Your task to perform on an android device: move a message to another label in the gmail app Image 0: 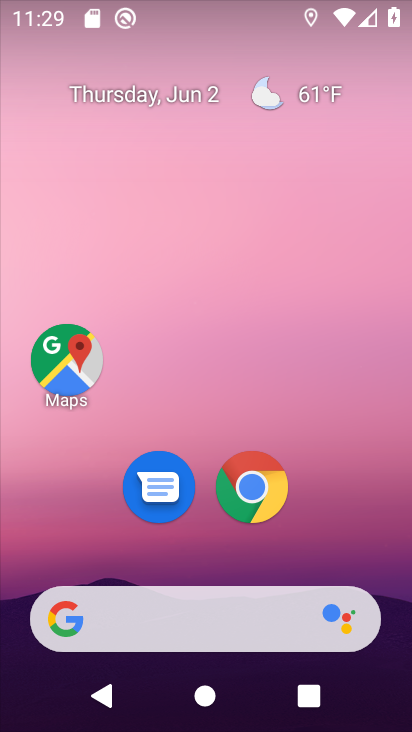
Step 0: drag from (333, 537) to (272, 81)
Your task to perform on an android device: move a message to another label in the gmail app Image 1: 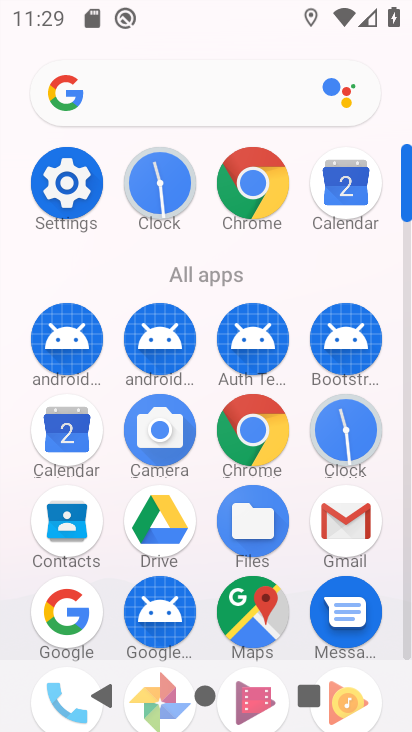
Step 1: drag from (299, 281) to (303, 127)
Your task to perform on an android device: move a message to another label in the gmail app Image 2: 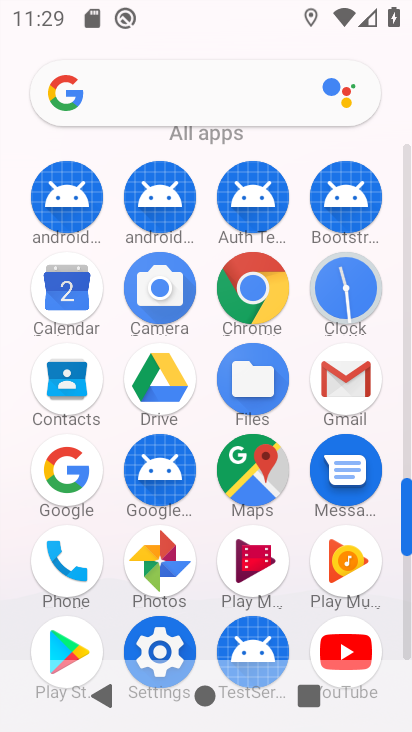
Step 2: click (348, 378)
Your task to perform on an android device: move a message to another label in the gmail app Image 3: 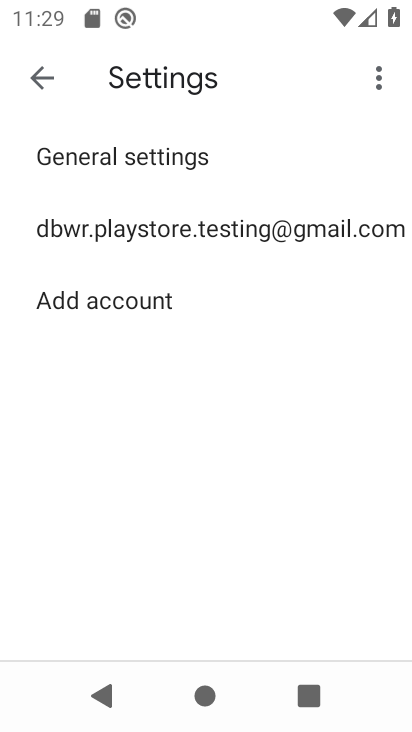
Step 3: click (39, 77)
Your task to perform on an android device: move a message to another label in the gmail app Image 4: 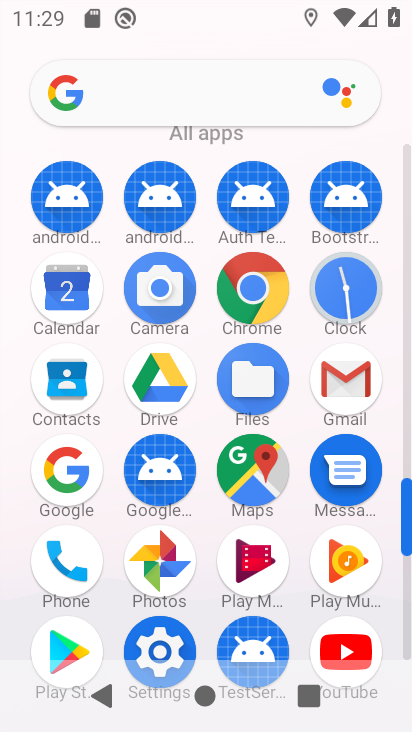
Step 4: click (344, 373)
Your task to perform on an android device: move a message to another label in the gmail app Image 5: 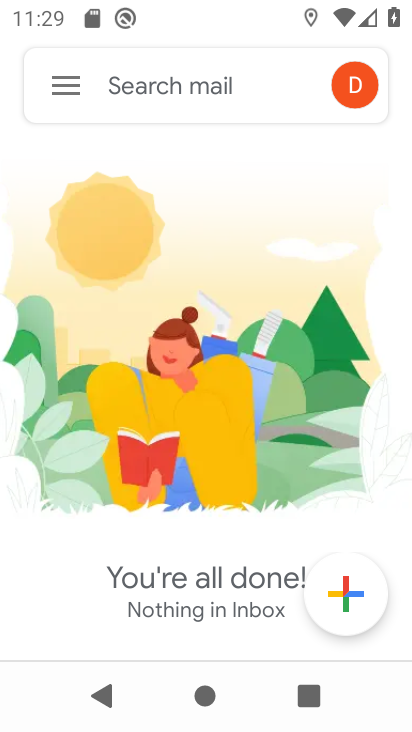
Step 5: click (55, 75)
Your task to perform on an android device: move a message to another label in the gmail app Image 6: 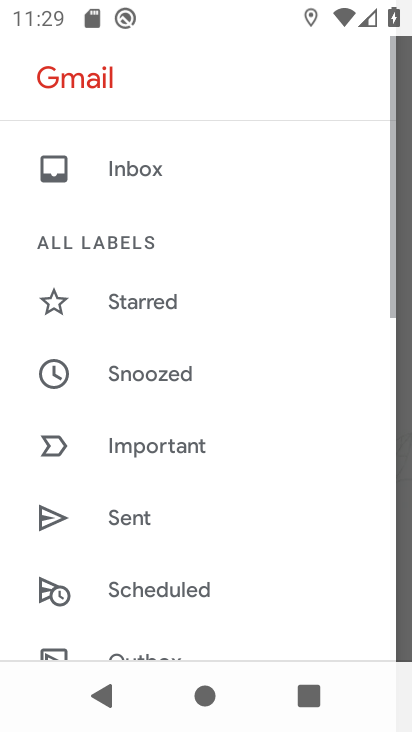
Step 6: click (95, 171)
Your task to perform on an android device: move a message to another label in the gmail app Image 7: 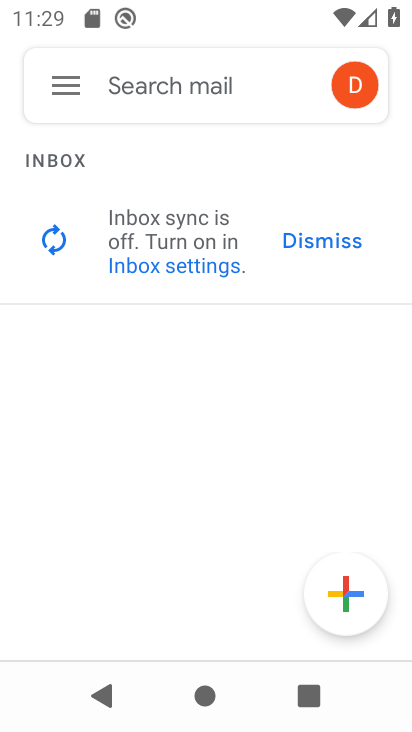
Step 7: click (68, 78)
Your task to perform on an android device: move a message to another label in the gmail app Image 8: 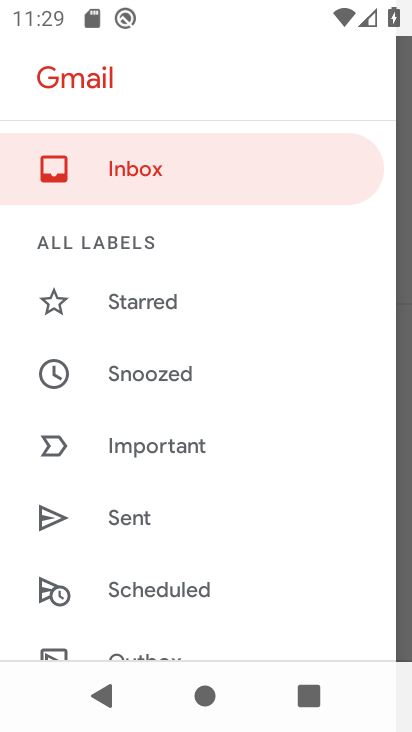
Step 8: click (152, 308)
Your task to perform on an android device: move a message to another label in the gmail app Image 9: 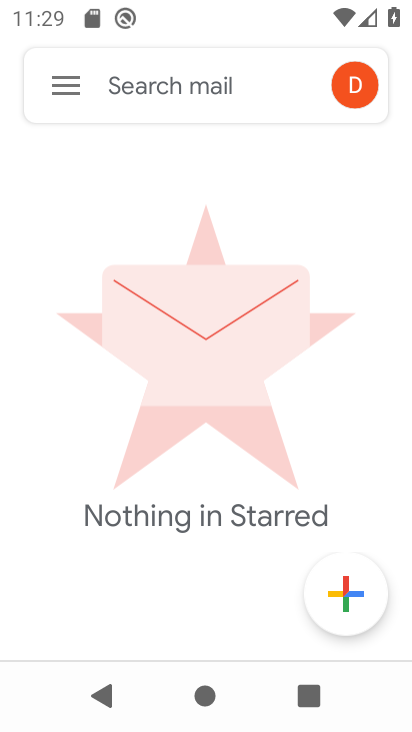
Step 9: click (69, 88)
Your task to perform on an android device: move a message to another label in the gmail app Image 10: 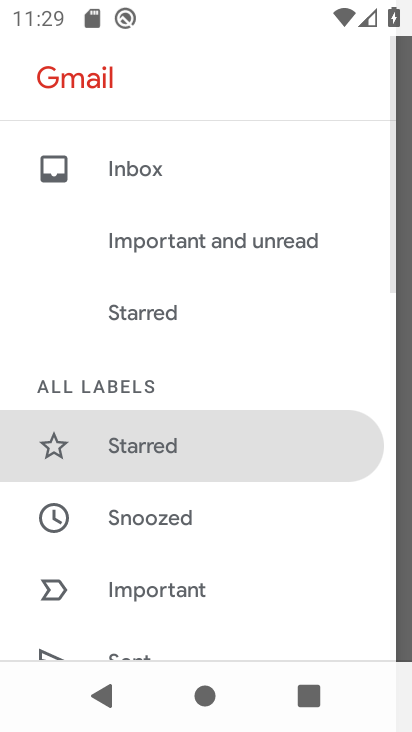
Step 10: drag from (158, 486) to (225, 383)
Your task to perform on an android device: move a message to another label in the gmail app Image 11: 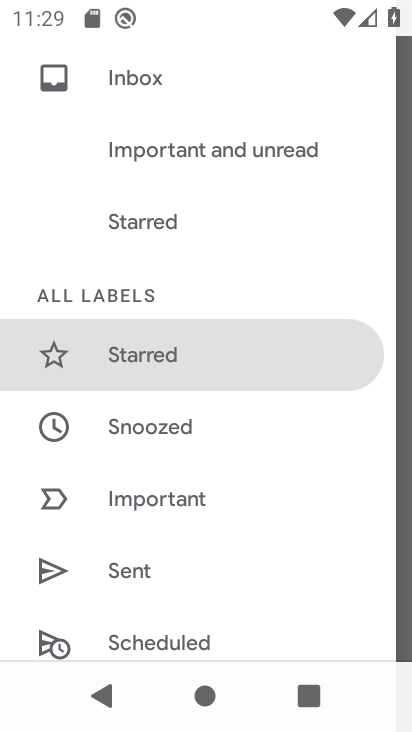
Step 11: drag from (164, 542) to (233, 445)
Your task to perform on an android device: move a message to another label in the gmail app Image 12: 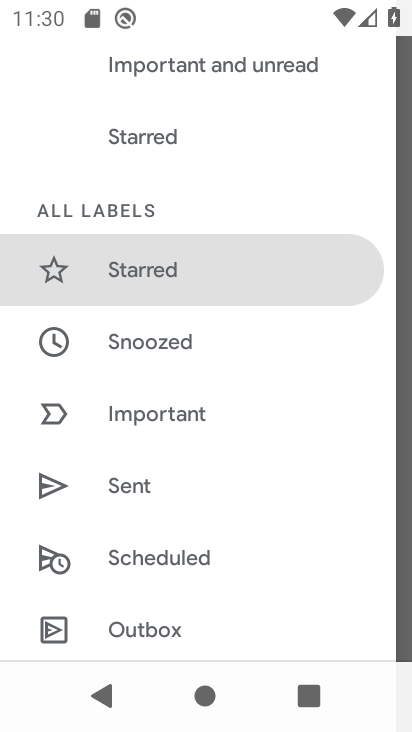
Step 12: drag from (178, 504) to (242, 420)
Your task to perform on an android device: move a message to another label in the gmail app Image 13: 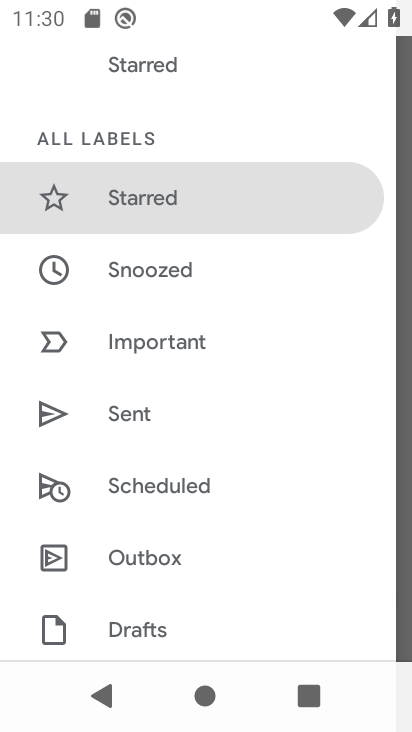
Step 13: drag from (154, 536) to (226, 452)
Your task to perform on an android device: move a message to another label in the gmail app Image 14: 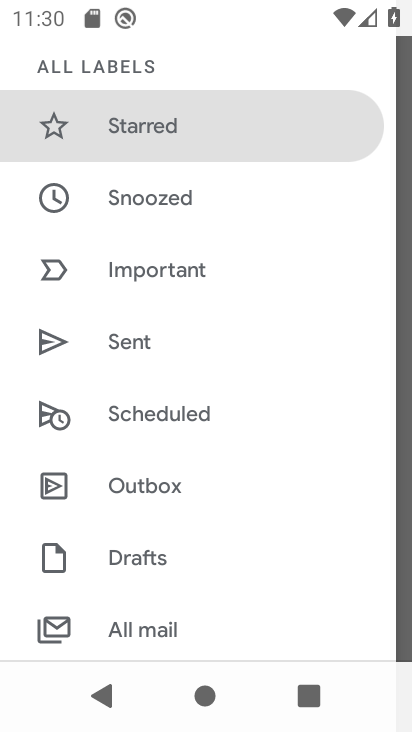
Step 14: click (154, 620)
Your task to perform on an android device: move a message to another label in the gmail app Image 15: 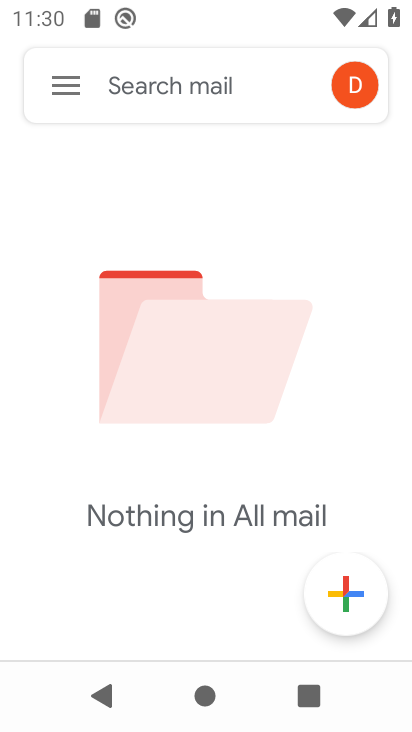
Step 15: click (58, 85)
Your task to perform on an android device: move a message to another label in the gmail app Image 16: 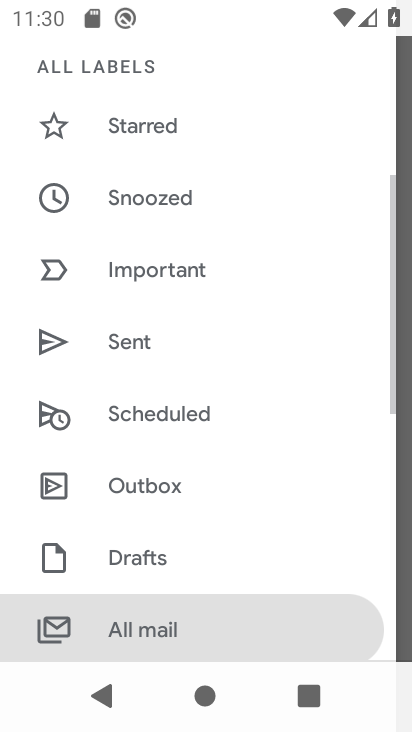
Step 16: drag from (161, 478) to (166, 564)
Your task to perform on an android device: move a message to another label in the gmail app Image 17: 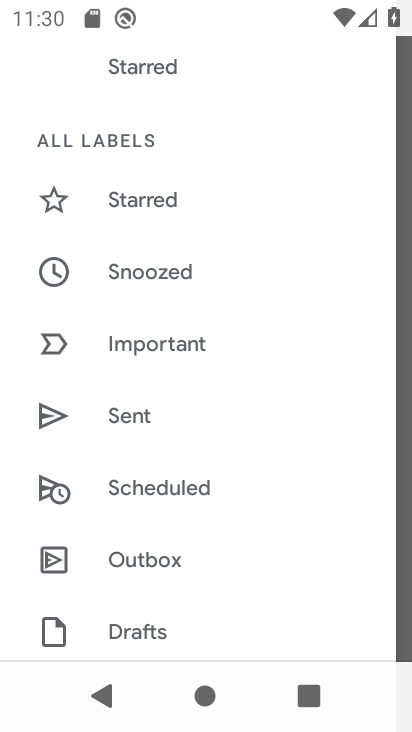
Step 17: click (173, 496)
Your task to perform on an android device: move a message to another label in the gmail app Image 18: 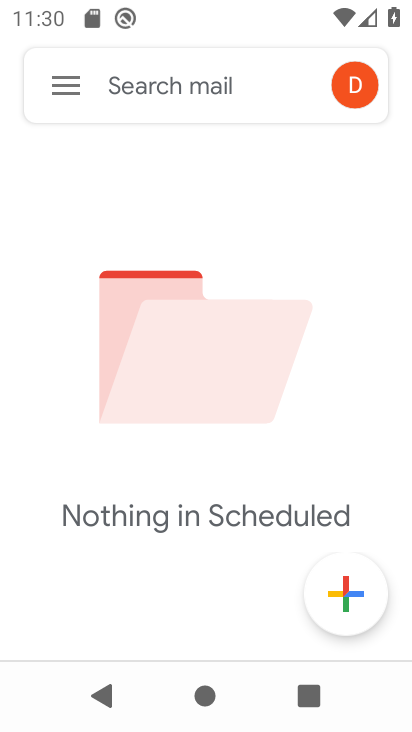
Step 18: click (73, 80)
Your task to perform on an android device: move a message to another label in the gmail app Image 19: 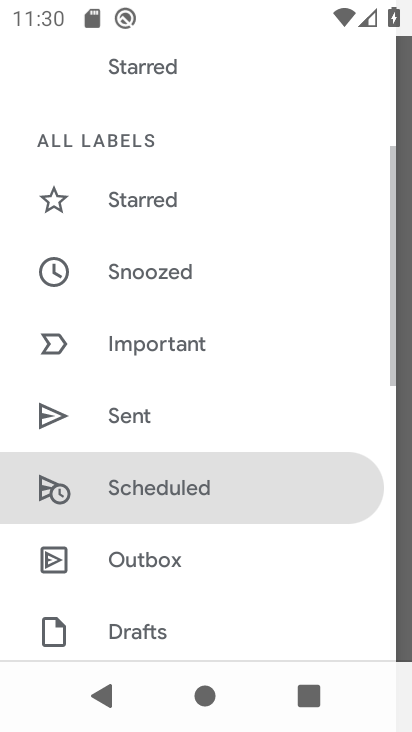
Step 19: drag from (143, 293) to (217, 402)
Your task to perform on an android device: move a message to another label in the gmail app Image 20: 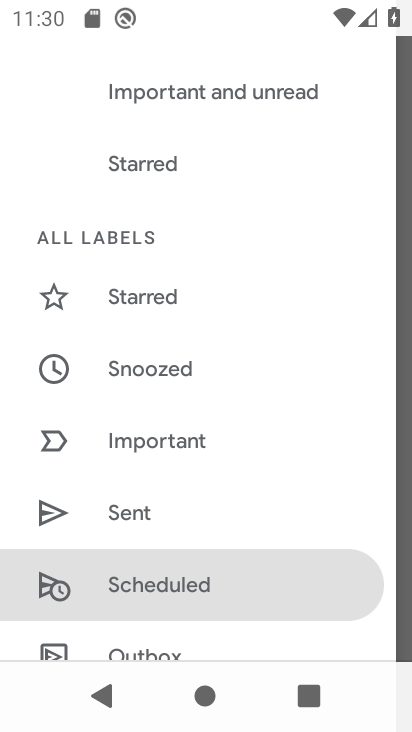
Step 20: click (210, 429)
Your task to perform on an android device: move a message to another label in the gmail app Image 21: 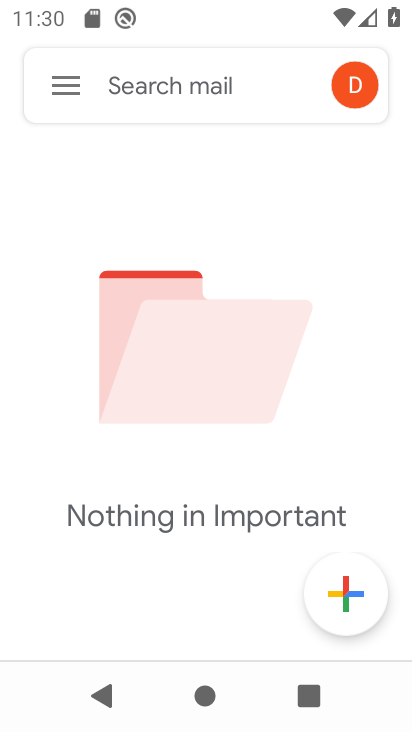
Step 21: task complete